Your task to perform on an android device: clear all cookies in the chrome app Image 0: 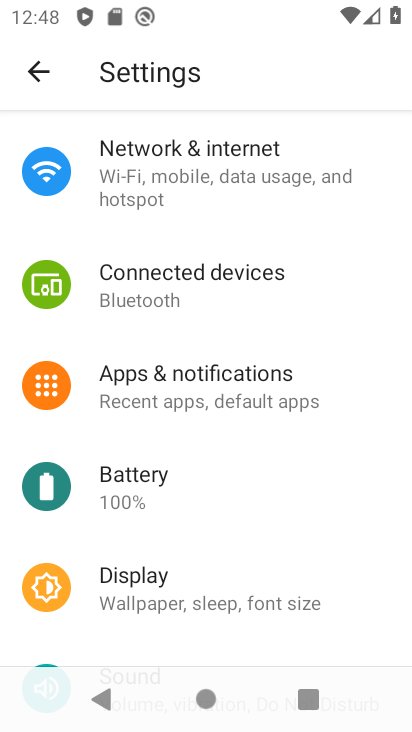
Step 0: press home button
Your task to perform on an android device: clear all cookies in the chrome app Image 1: 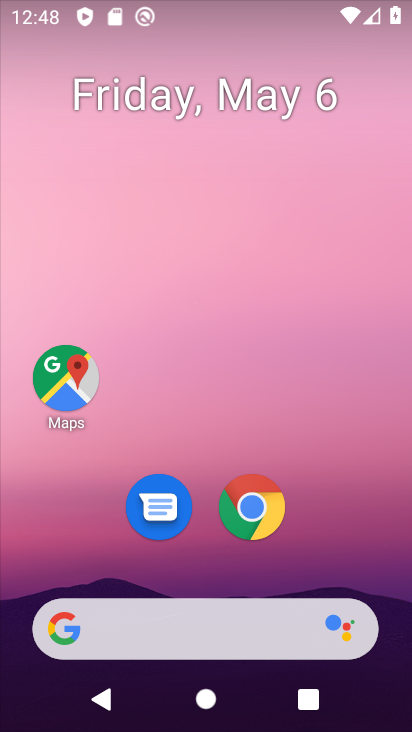
Step 1: click (256, 520)
Your task to perform on an android device: clear all cookies in the chrome app Image 2: 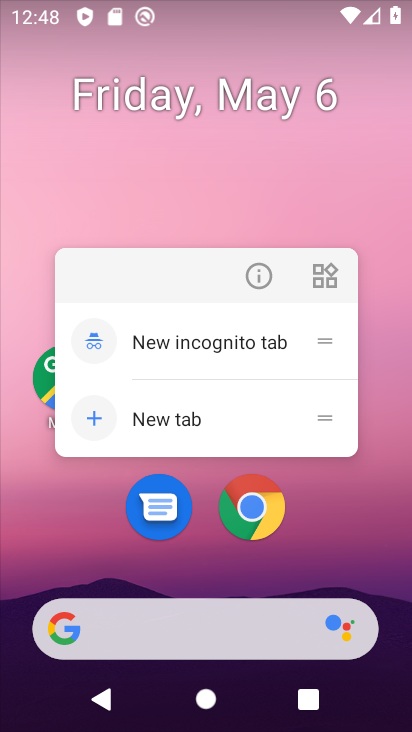
Step 2: click (252, 517)
Your task to perform on an android device: clear all cookies in the chrome app Image 3: 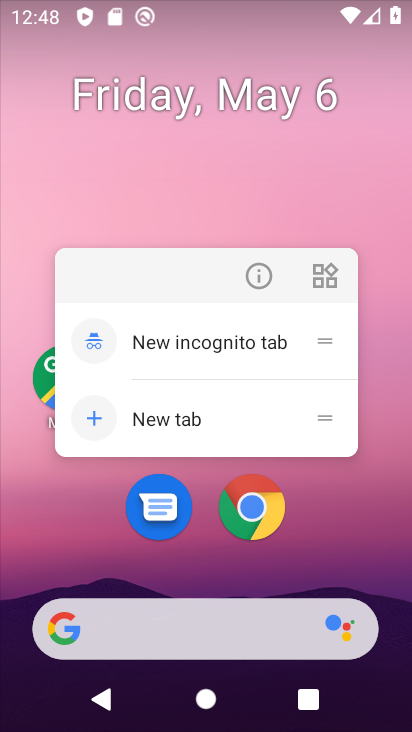
Step 3: click (260, 499)
Your task to perform on an android device: clear all cookies in the chrome app Image 4: 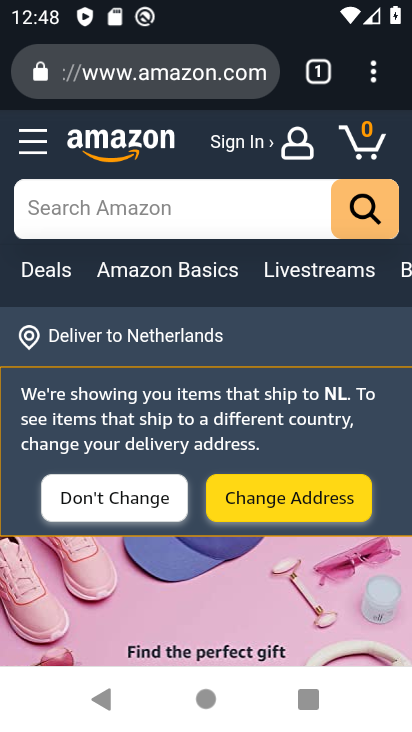
Step 4: drag from (389, 90) to (245, 511)
Your task to perform on an android device: clear all cookies in the chrome app Image 5: 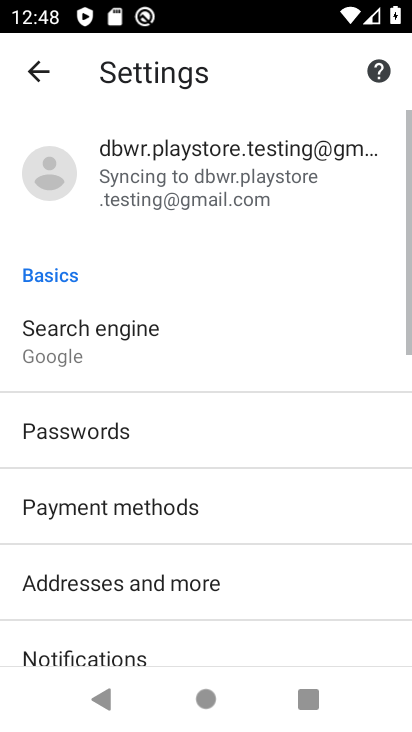
Step 5: drag from (188, 595) to (300, 258)
Your task to perform on an android device: clear all cookies in the chrome app Image 6: 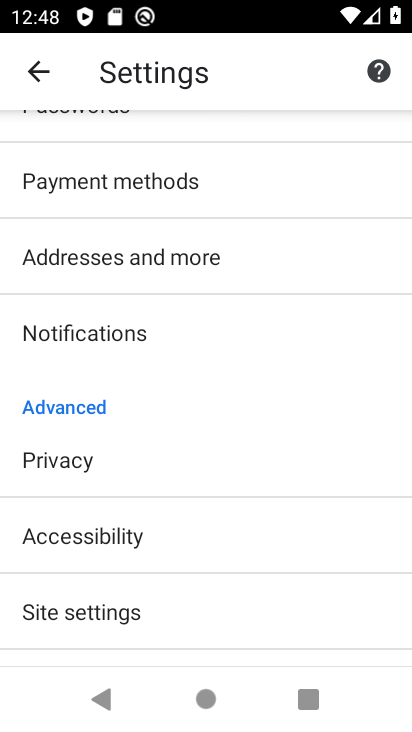
Step 6: click (148, 473)
Your task to perform on an android device: clear all cookies in the chrome app Image 7: 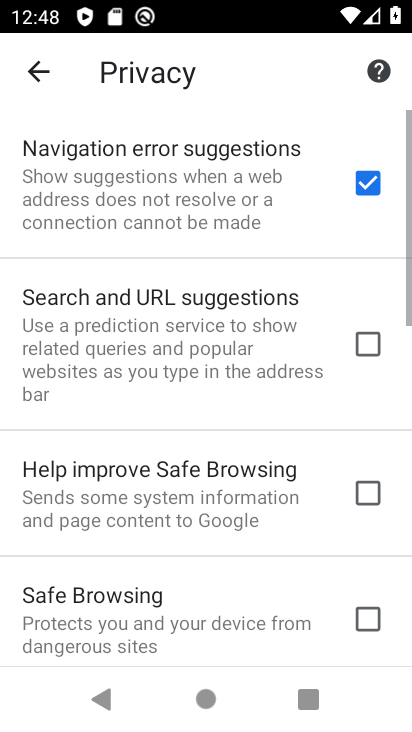
Step 7: drag from (146, 640) to (317, 73)
Your task to perform on an android device: clear all cookies in the chrome app Image 8: 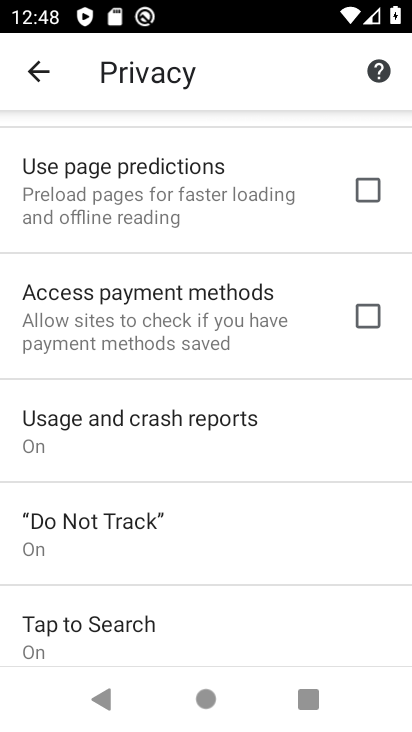
Step 8: drag from (172, 585) to (314, 132)
Your task to perform on an android device: clear all cookies in the chrome app Image 9: 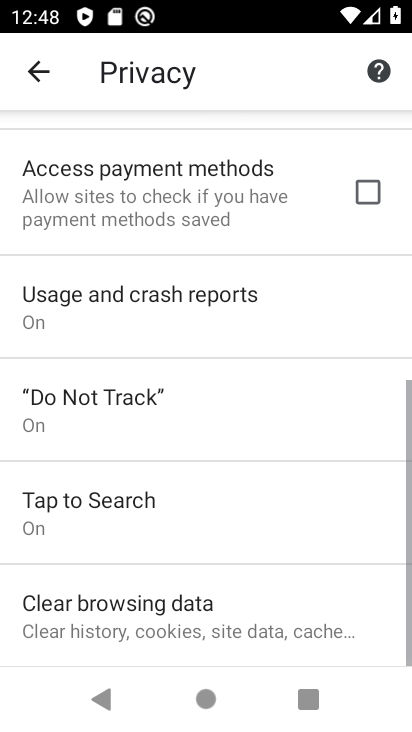
Step 9: click (131, 601)
Your task to perform on an android device: clear all cookies in the chrome app Image 10: 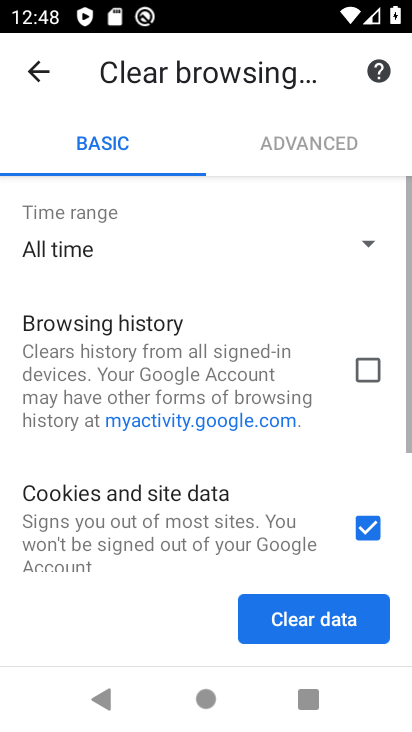
Step 10: drag from (187, 560) to (300, 261)
Your task to perform on an android device: clear all cookies in the chrome app Image 11: 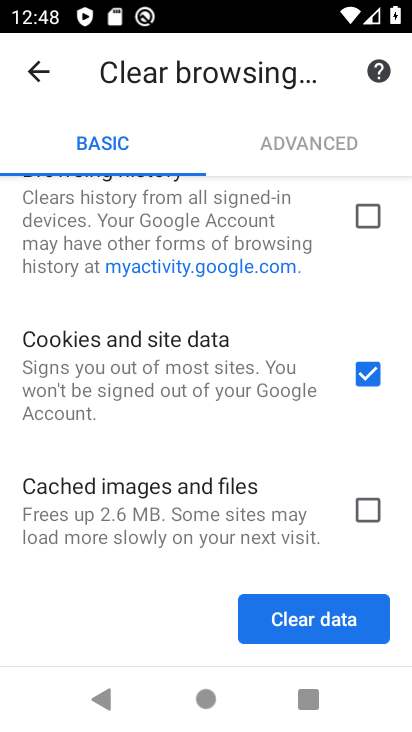
Step 11: click (337, 620)
Your task to perform on an android device: clear all cookies in the chrome app Image 12: 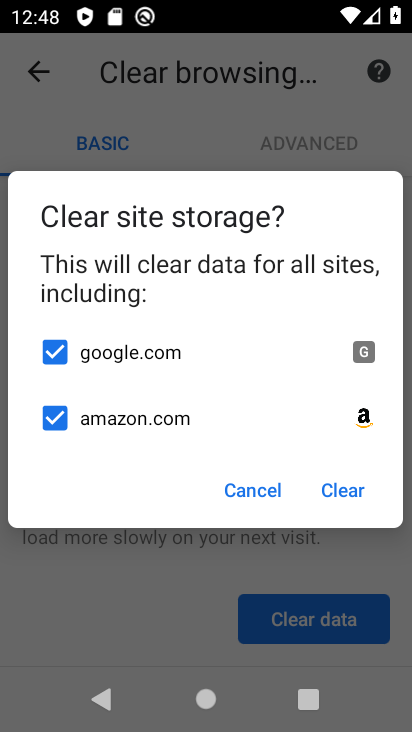
Step 12: click (339, 486)
Your task to perform on an android device: clear all cookies in the chrome app Image 13: 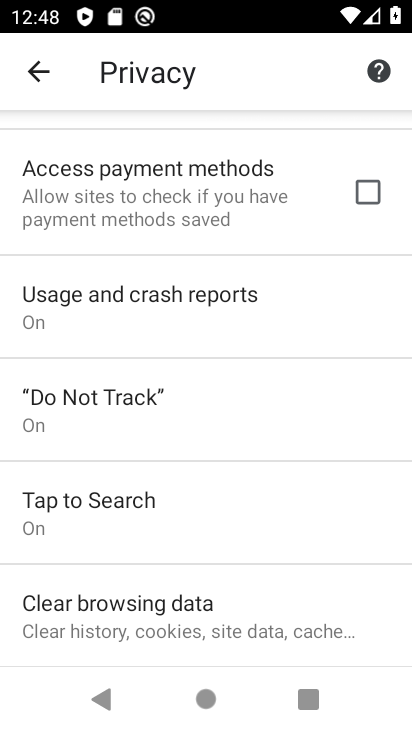
Step 13: task complete